Your task to perform on an android device: Go to notification settings Image 0: 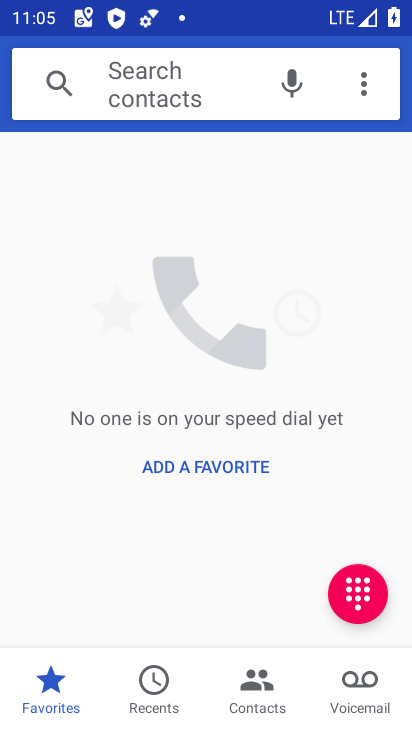
Step 0: press back button
Your task to perform on an android device: Go to notification settings Image 1: 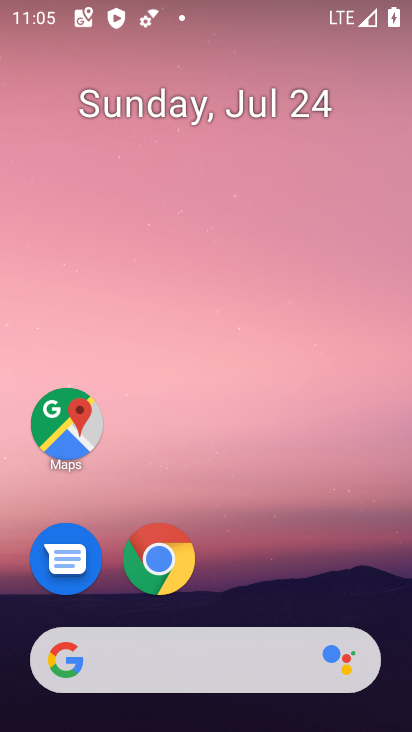
Step 1: drag from (277, 573) to (277, 0)
Your task to perform on an android device: Go to notification settings Image 2: 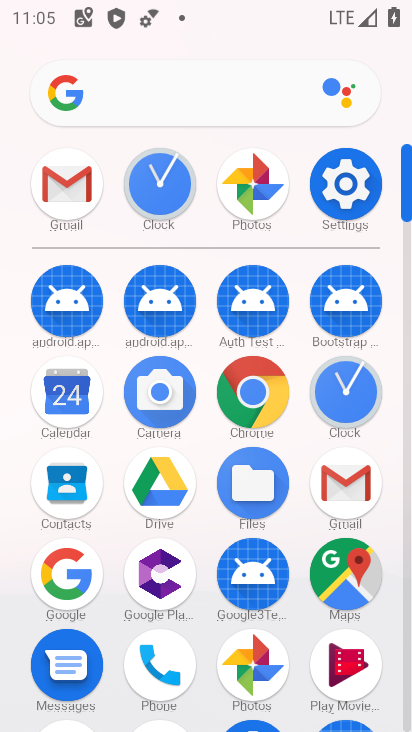
Step 2: click (339, 186)
Your task to perform on an android device: Go to notification settings Image 3: 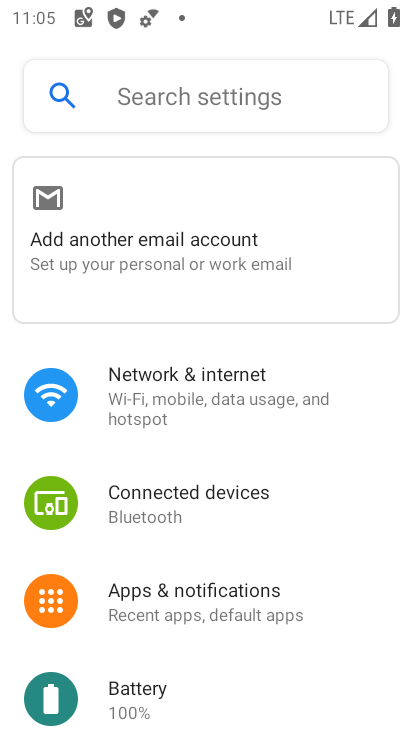
Step 3: click (215, 577)
Your task to perform on an android device: Go to notification settings Image 4: 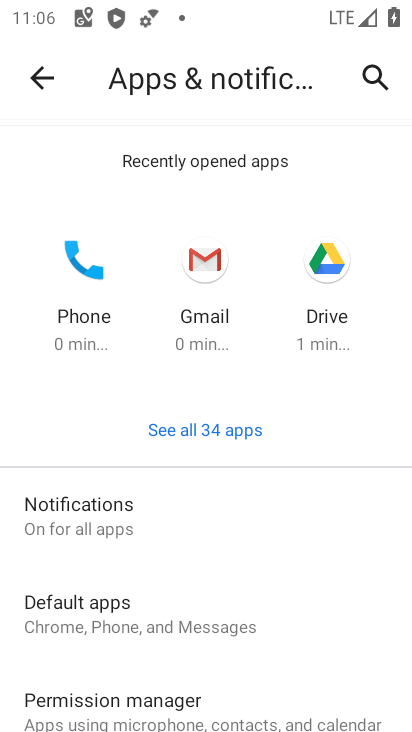
Step 4: click (140, 522)
Your task to perform on an android device: Go to notification settings Image 5: 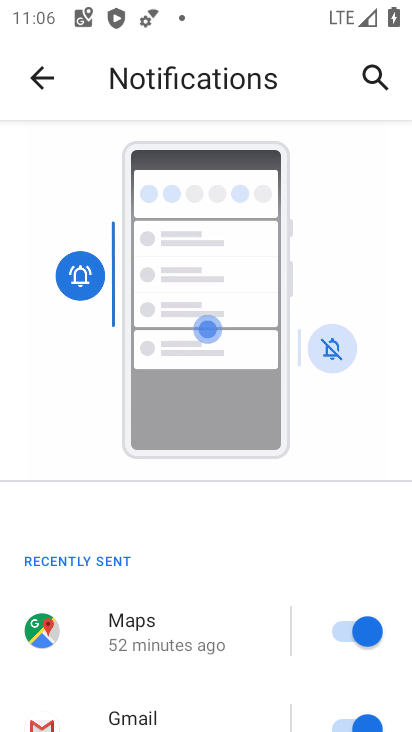
Step 5: task complete